Your task to perform on an android device: uninstall "Venmo" Image 0: 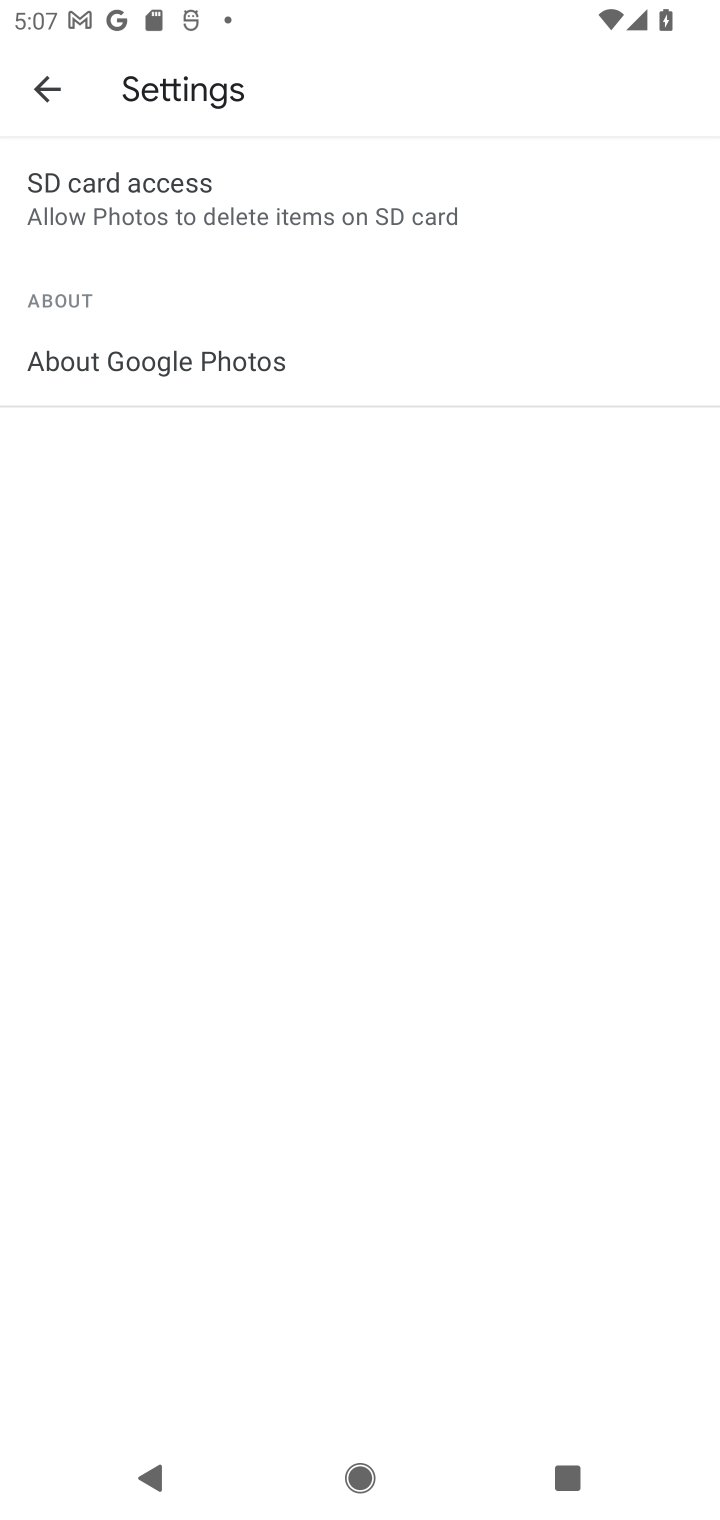
Step 0: press home button
Your task to perform on an android device: uninstall "Venmo" Image 1: 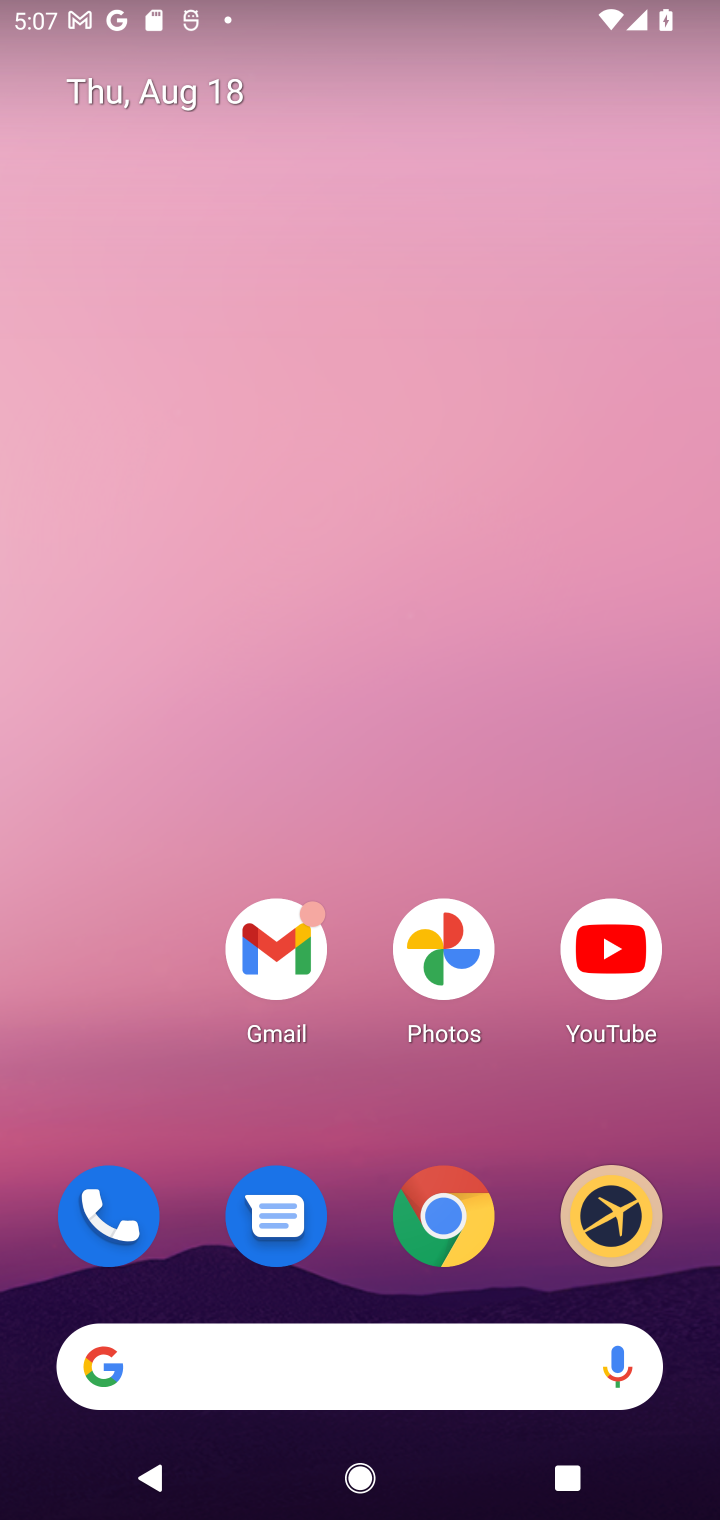
Step 1: drag from (530, 1279) to (527, 168)
Your task to perform on an android device: uninstall "Venmo" Image 2: 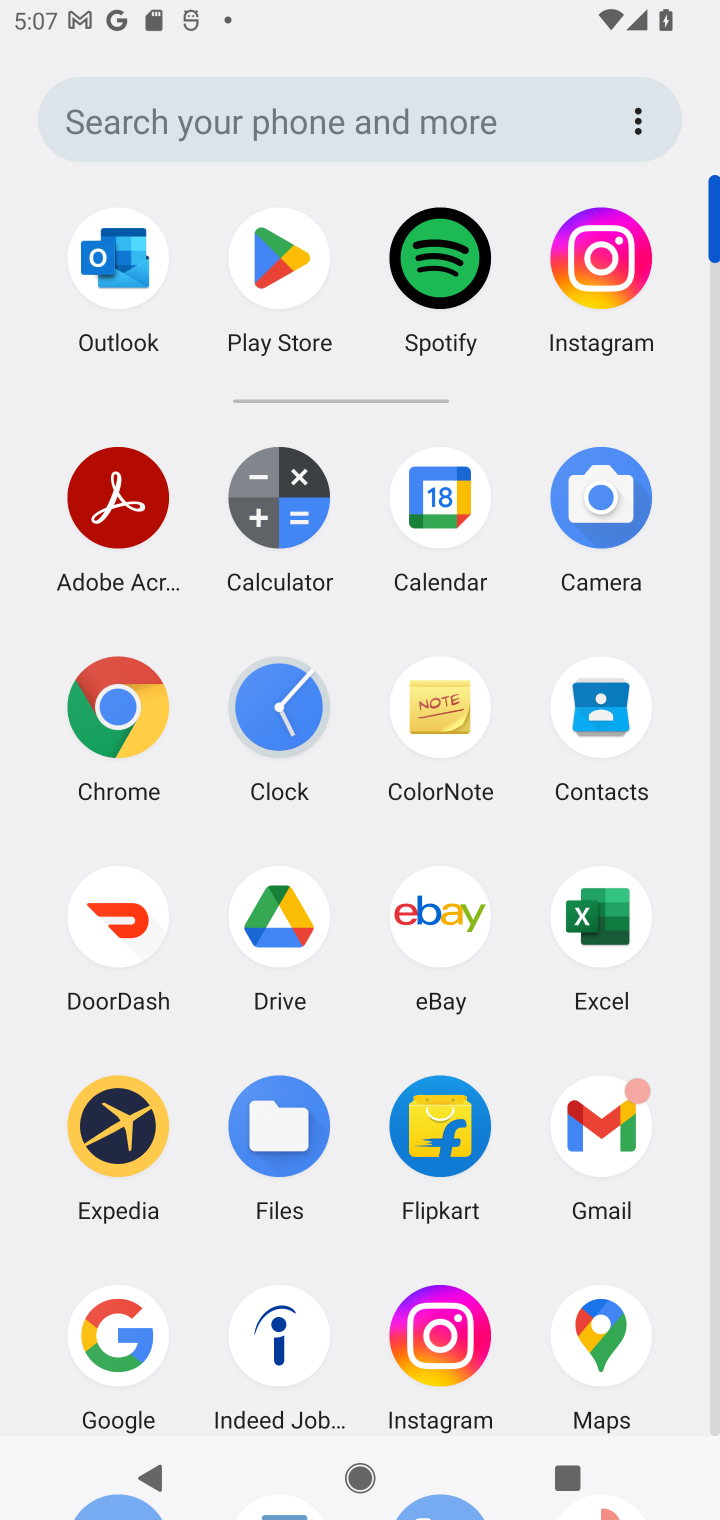
Step 2: click (717, 1413)
Your task to perform on an android device: uninstall "Venmo" Image 3: 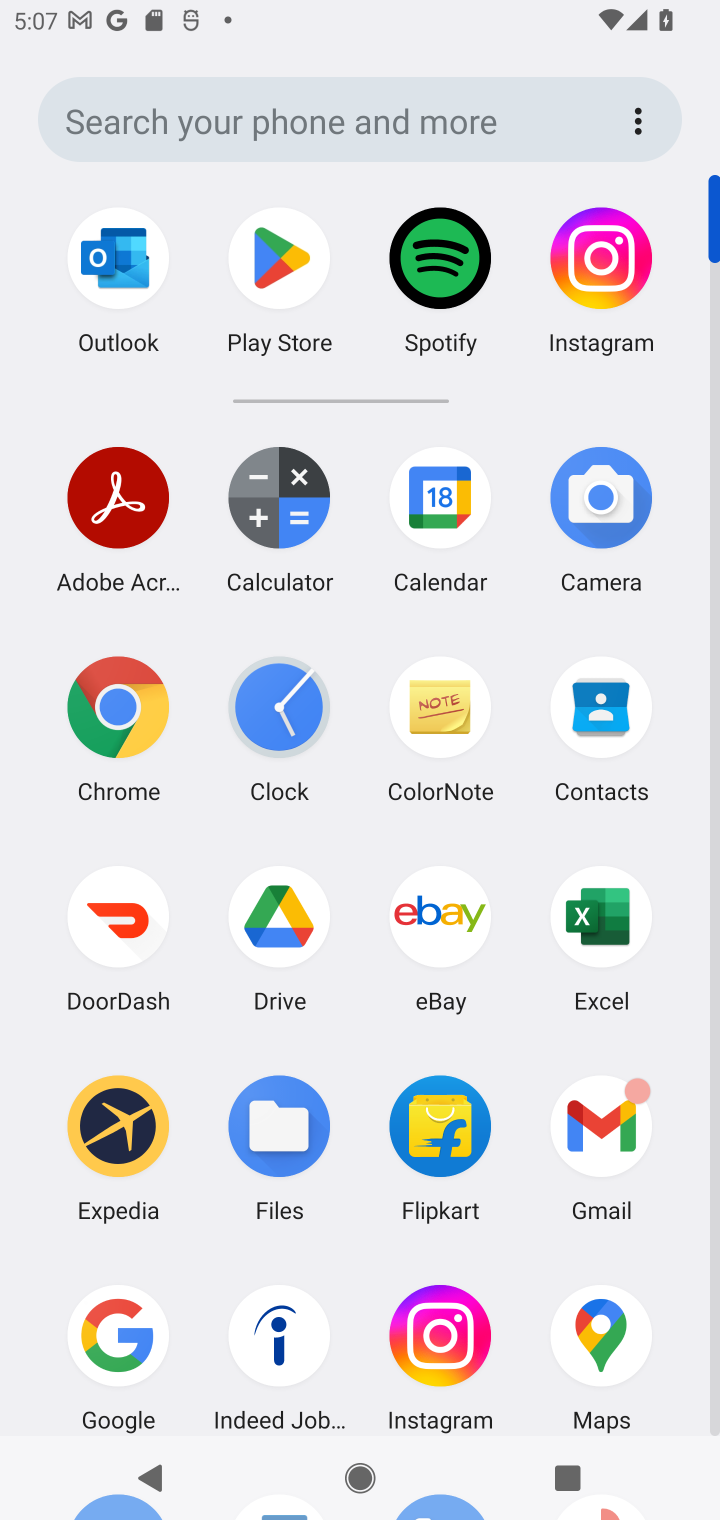
Step 3: click (712, 1414)
Your task to perform on an android device: uninstall "Venmo" Image 4: 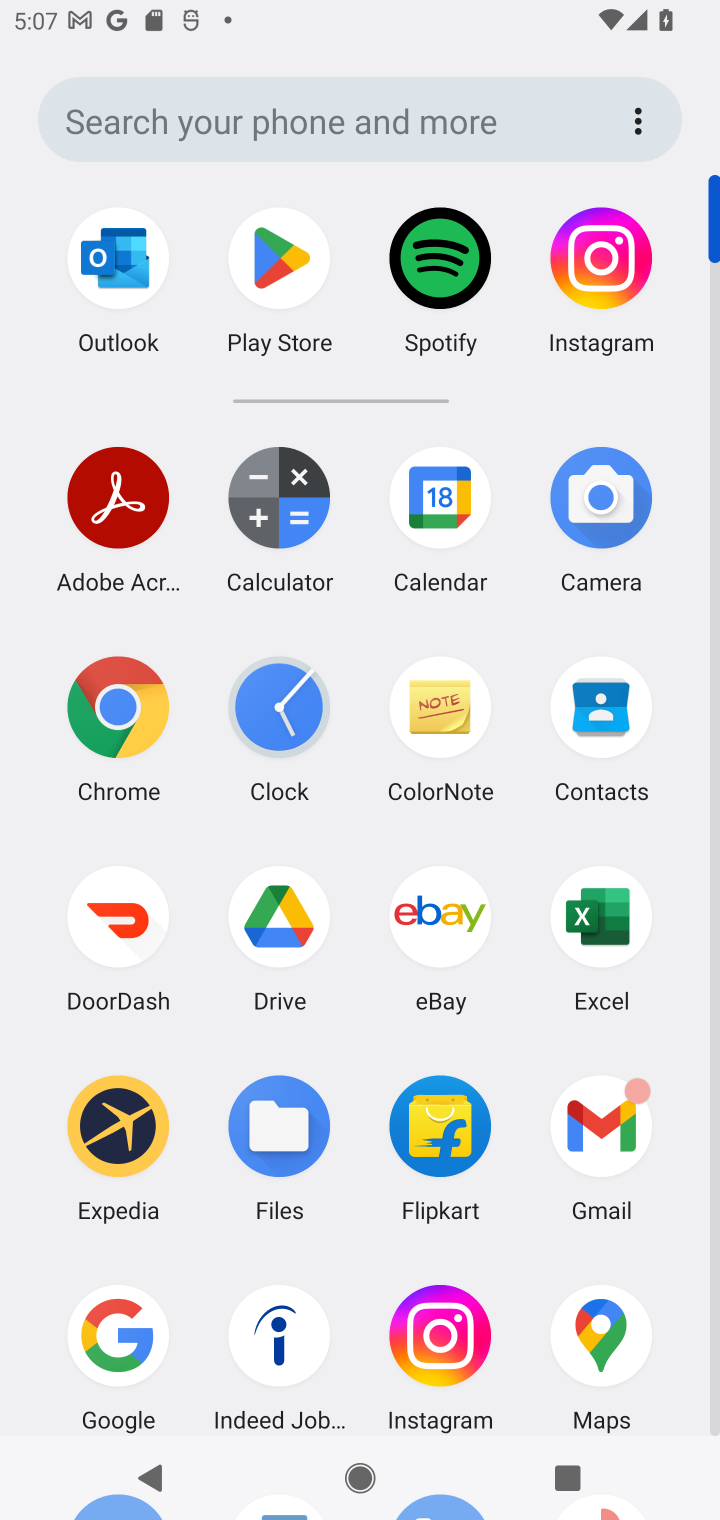
Step 4: click (712, 1402)
Your task to perform on an android device: uninstall "Venmo" Image 5: 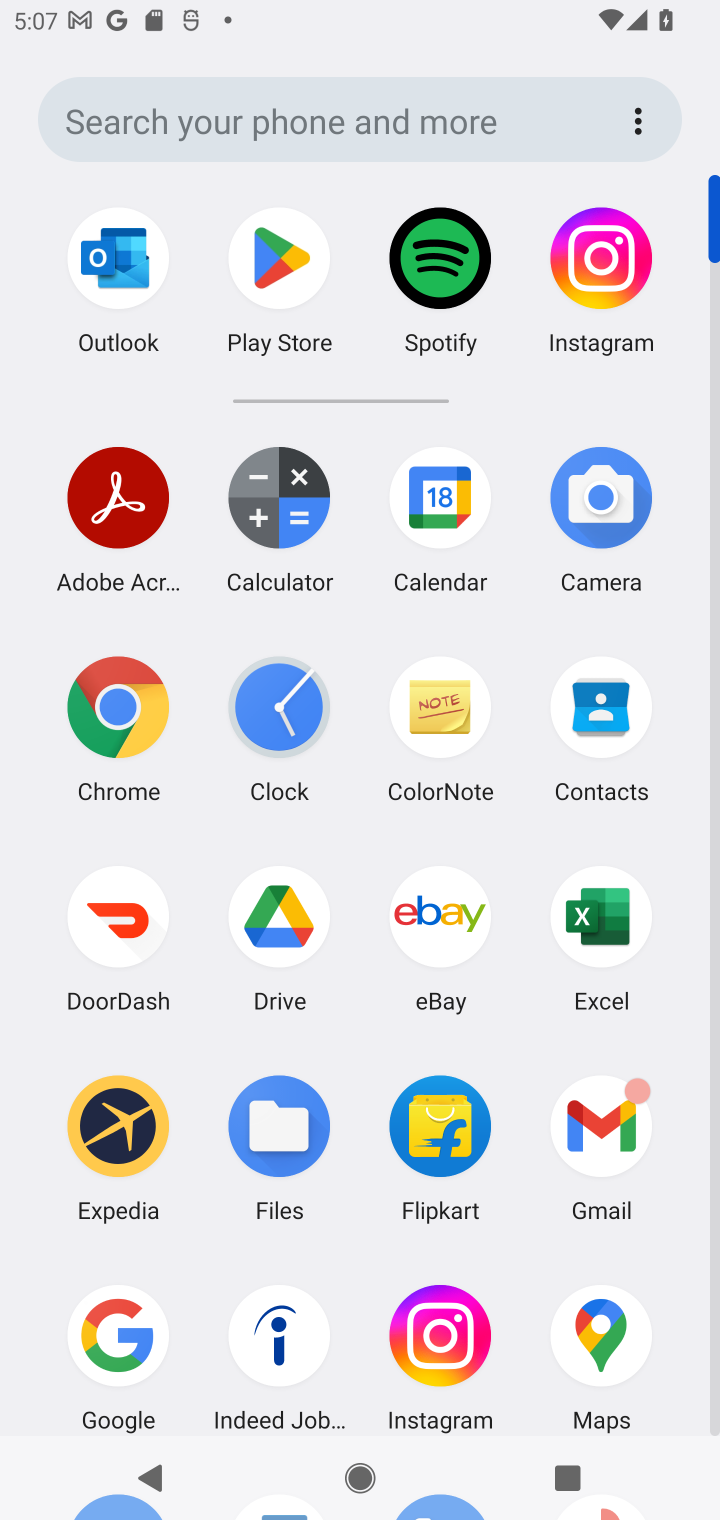
Step 5: drag from (531, 1241) to (478, 412)
Your task to perform on an android device: uninstall "Venmo" Image 6: 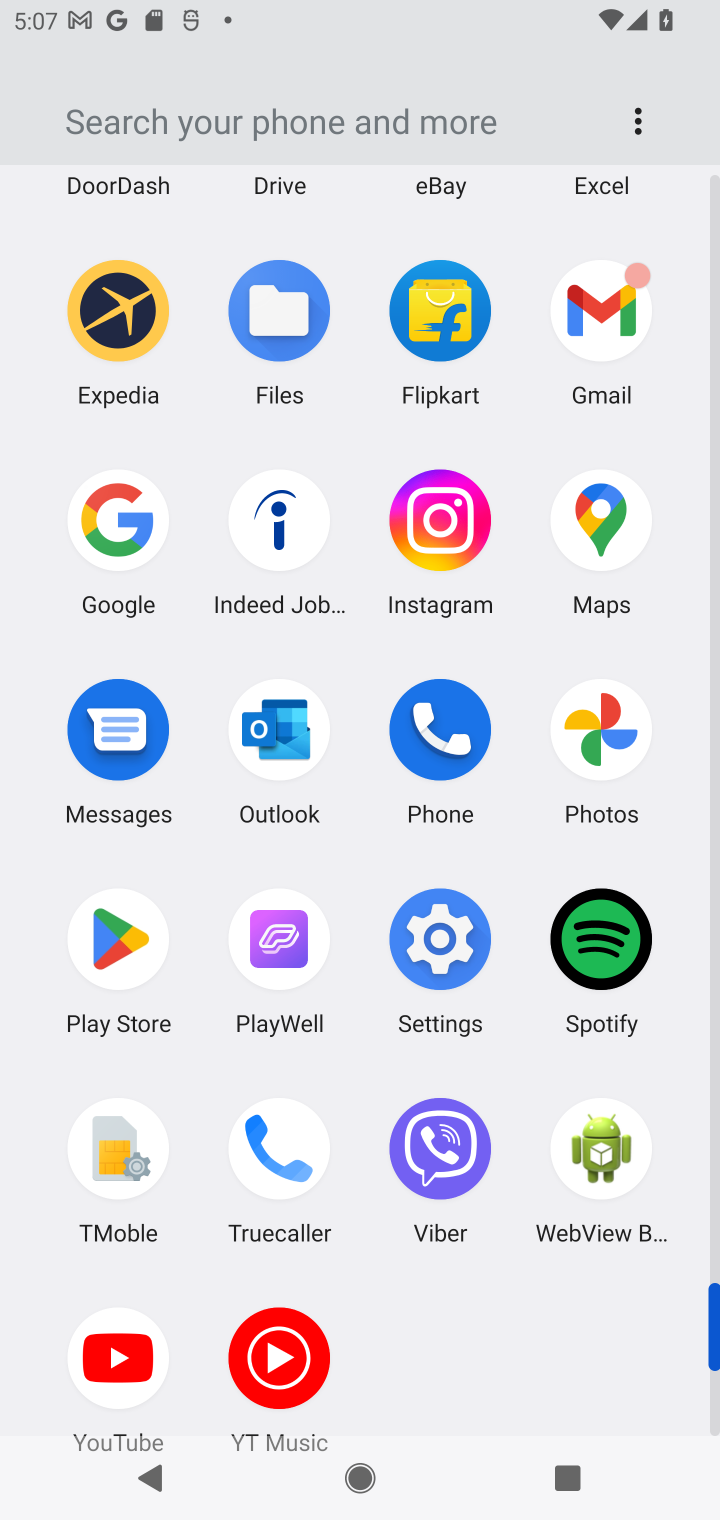
Step 6: click (125, 943)
Your task to perform on an android device: uninstall "Venmo" Image 7: 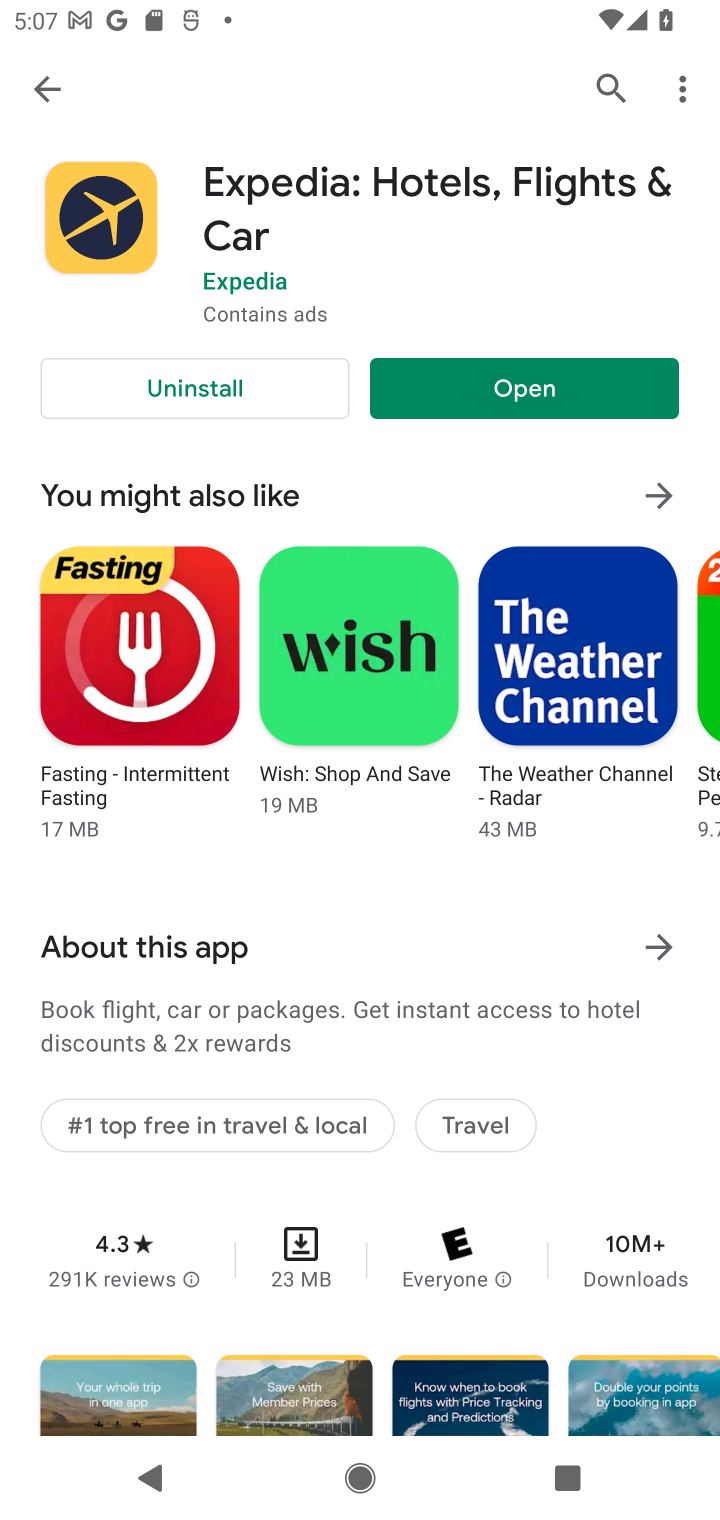
Step 7: click (604, 80)
Your task to perform on an android device: uninstall "Venmo" Image 8: 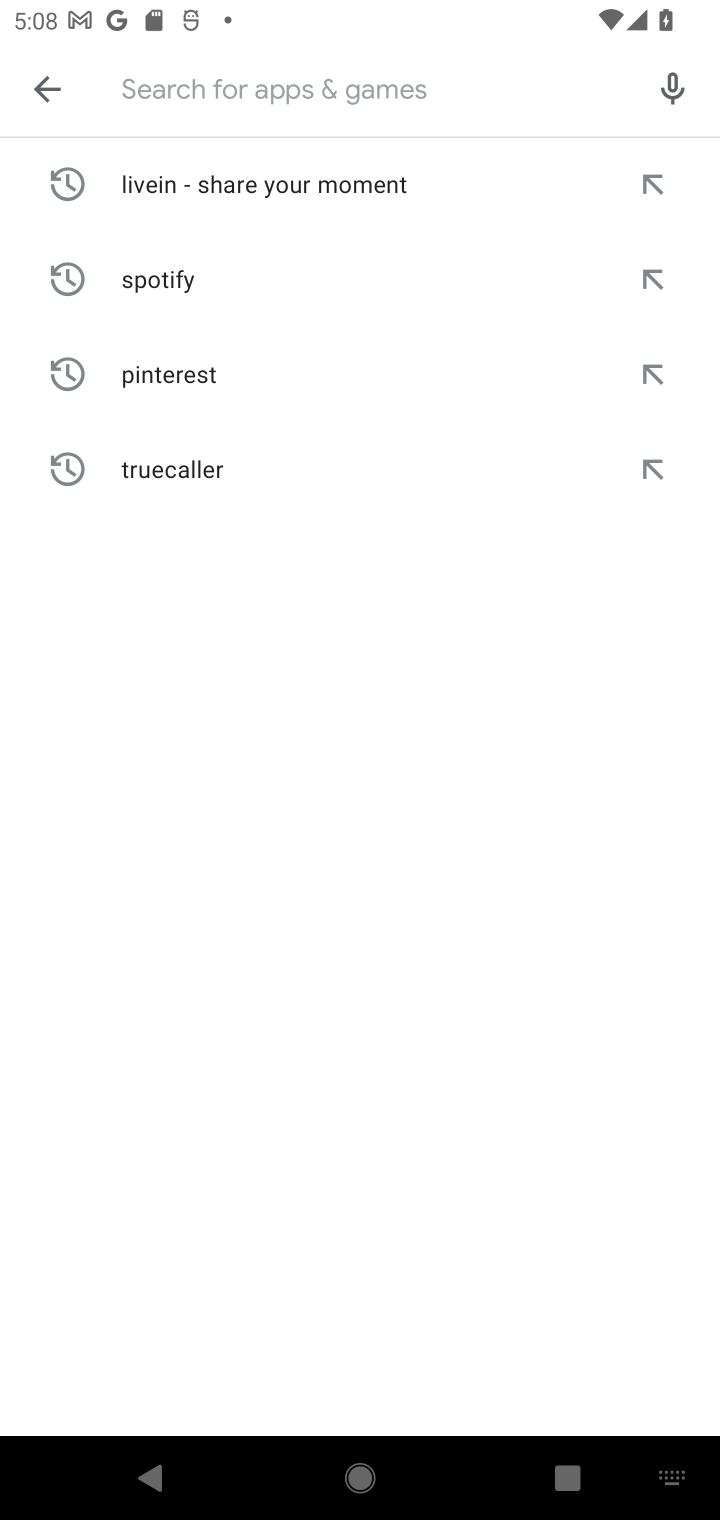
Step 8: type "Venmo"
Your task to perform on an android device: uninstall "Venmo" Image 9: 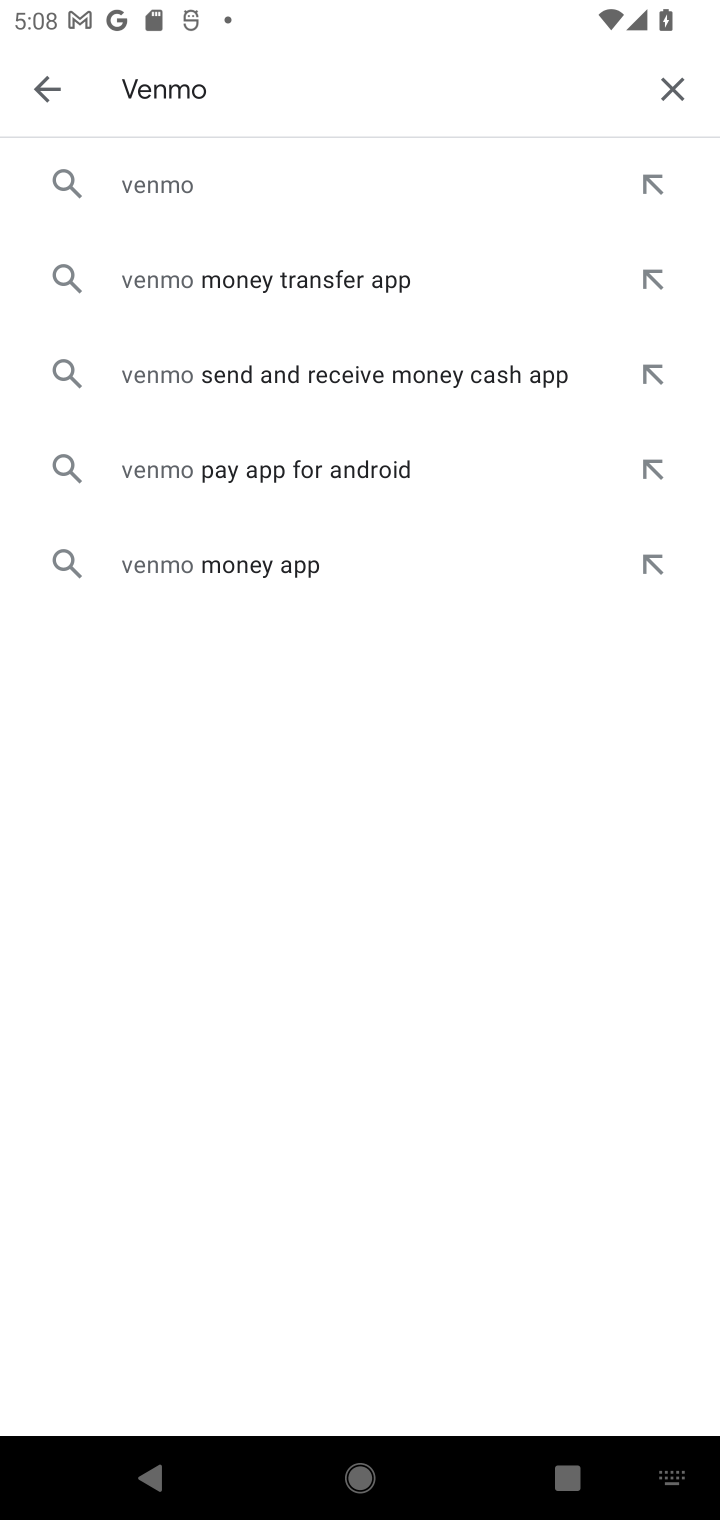
Step 9: click (166, 188)
Your task to perform on an android device: uninstall "Venmo" Image 10: 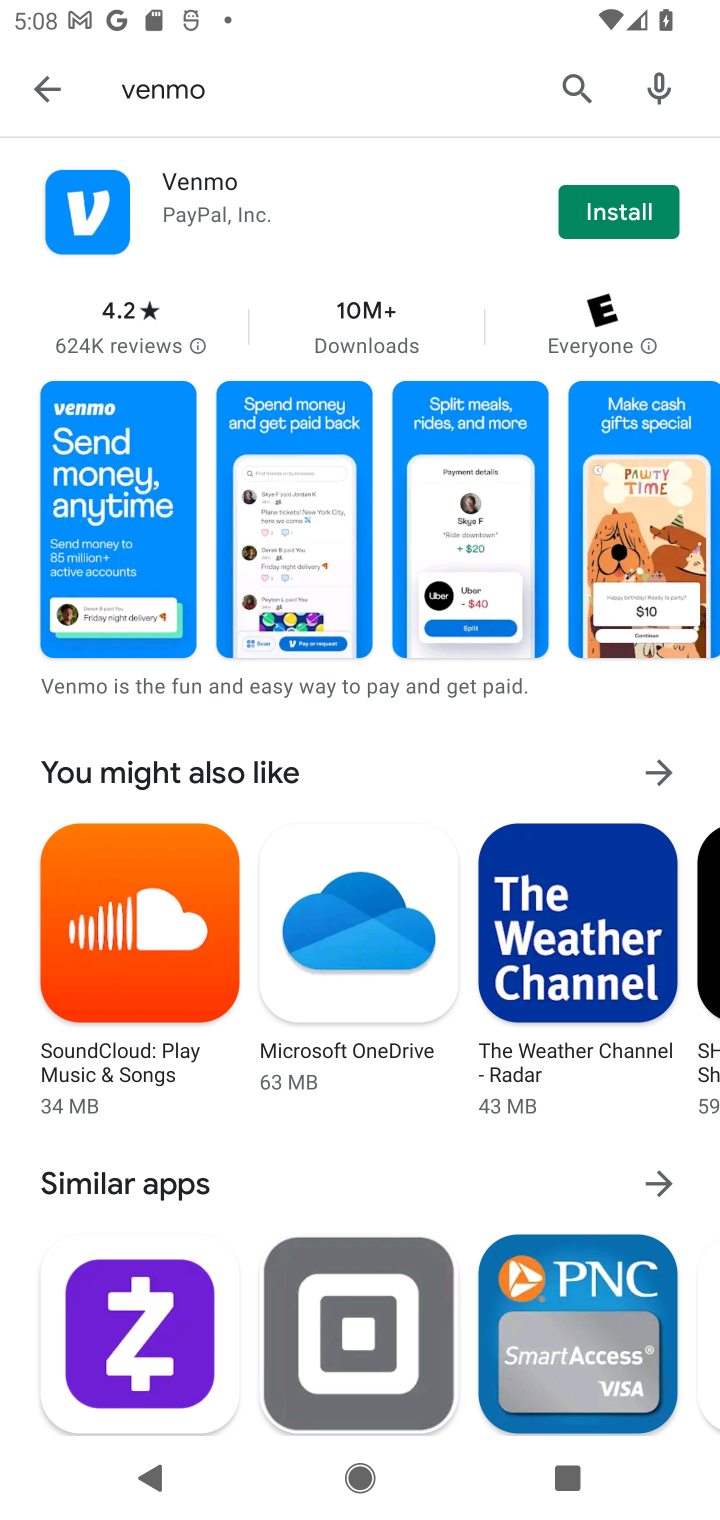
Step 10: task complete